Your task to perform on an android device: What's the weather going to be tomorrow? Image 0: 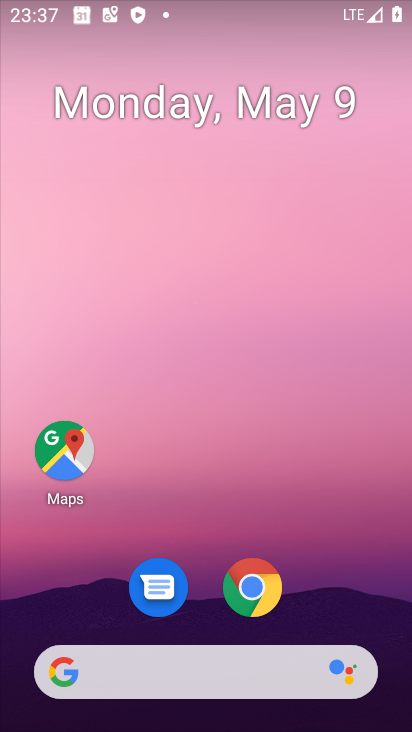
Step 0: click (148, 674)
Your task to perform on an android device: What's the weather going to be tomorrow? Image 1: 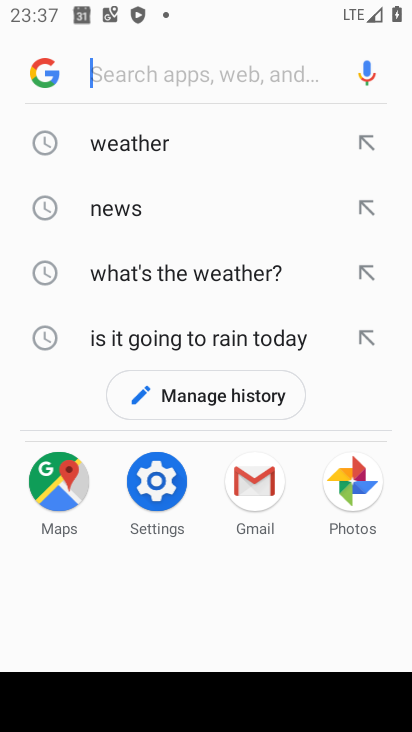
Step 1: click (189, 147)
Your task to perform on an android device: What's the weather going to be tomorrow? Image 2: 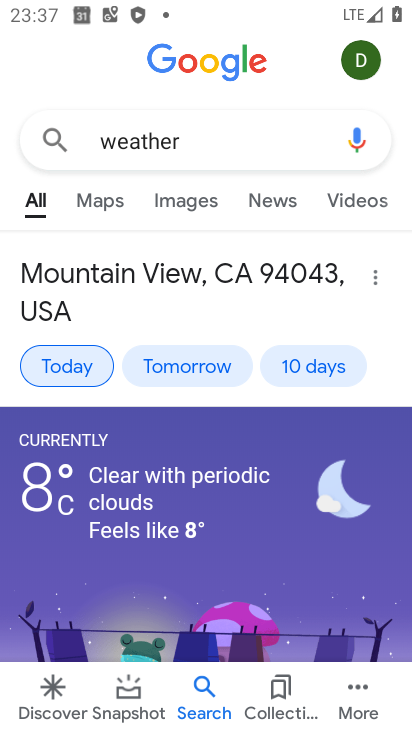
Step 2: task complete